Your task to perform on an android device: turn on the 24-hour format for clock Image 0: 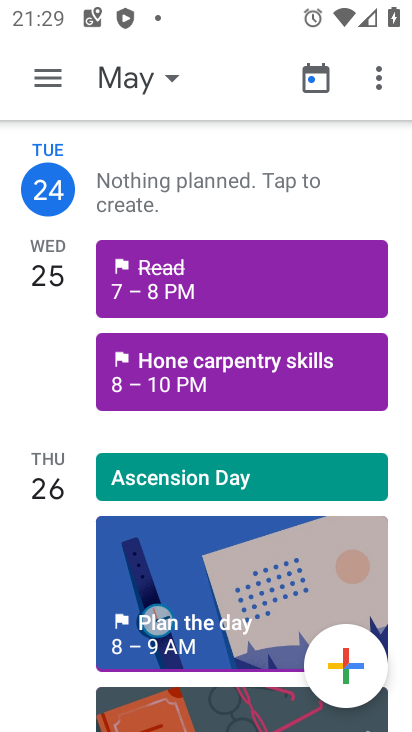
Step 0: press home button
Your task to perform on an android device: turn on the 24-hour format for clock Image 1: 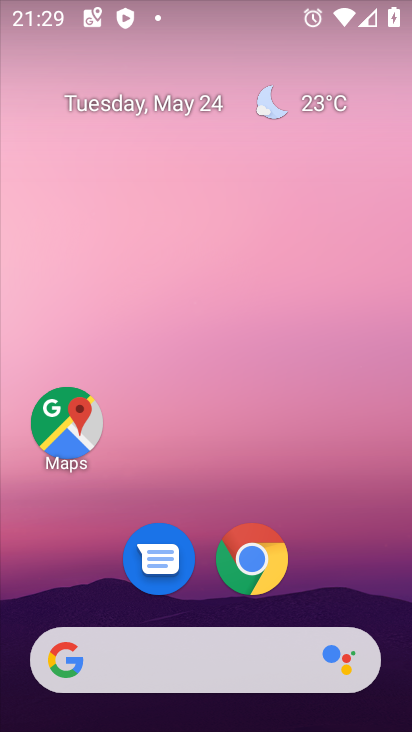
Step 1: drag from (352, 528) to (306, 86)
Your task to perform on an android device: turn on the 24-hour format for clock Image 2: 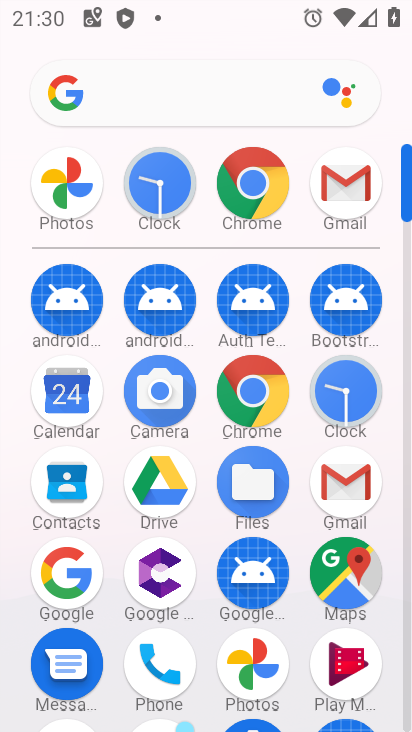
Step 2: click (353, 392)
Your task to perform on an android device: turn on the 24-hour format for clock Image 3: 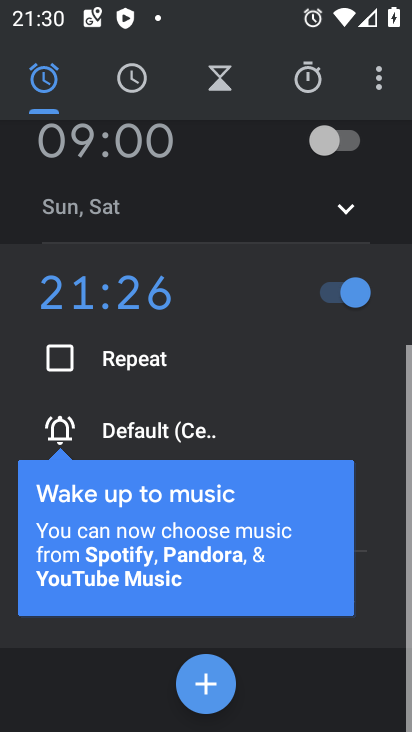
Step 3: click (378, 78)
Your task to perform on an android device: turn on the 24-hour format for clock Image 4: 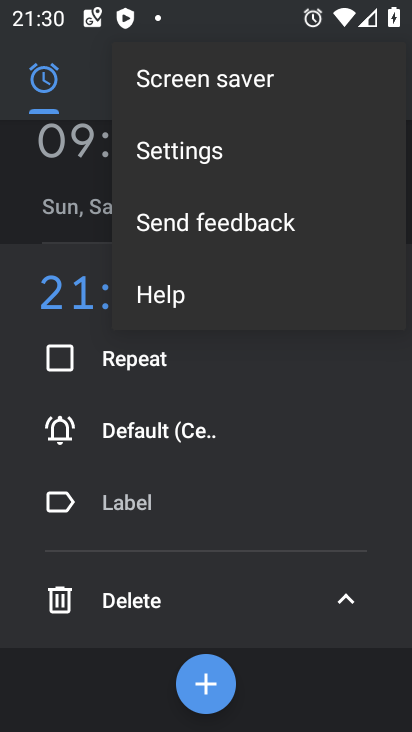
Step 4: click (202, 175)
Your task to perform on an android device: turn on the 24-hour format for clock Image 5: 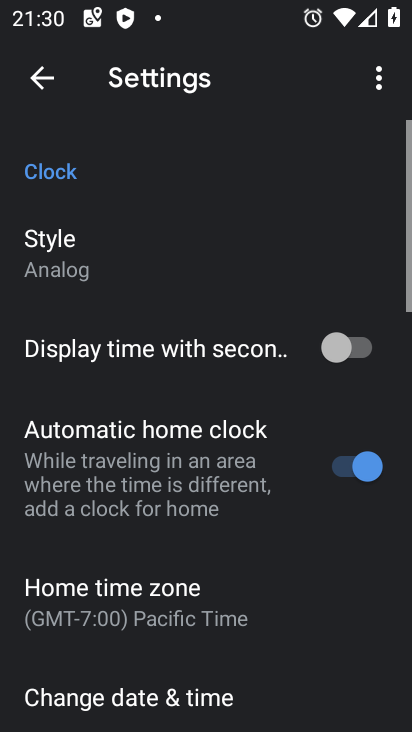
Step 5: drag from (187, 584) to (205, 147)
Your task to perform on an android device: turn on the 24-hour format for clock Image 6: 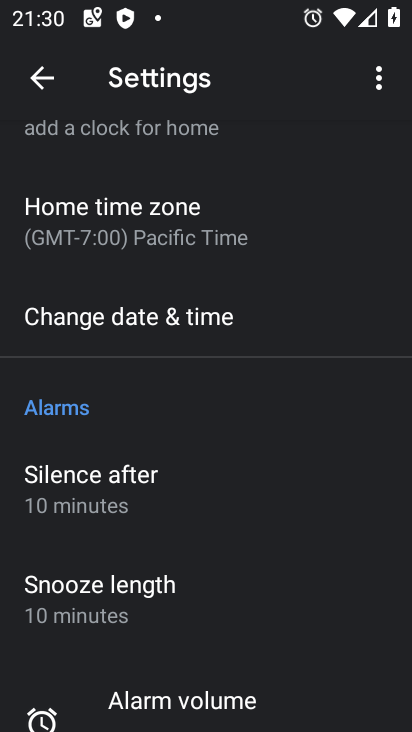
Step 6: click (137, 327)
Your task to perform on an android device: turn on the 24-hour format for clock Image 7: 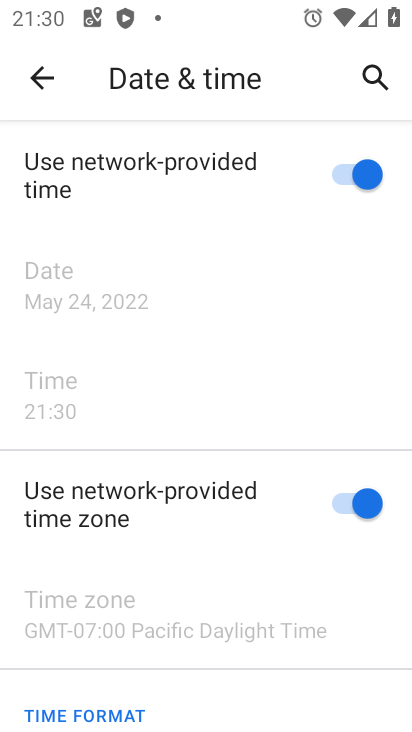
Step 7: task complete